Your task to perform on an android device: What's the weather like in Seoul? Image 0: 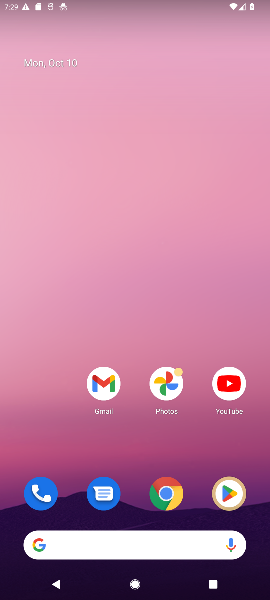
Step 0: drag from (131, 370) to (96, 47)
Your task to perform on an android device: What's the weather like in Seoul? Image 1: 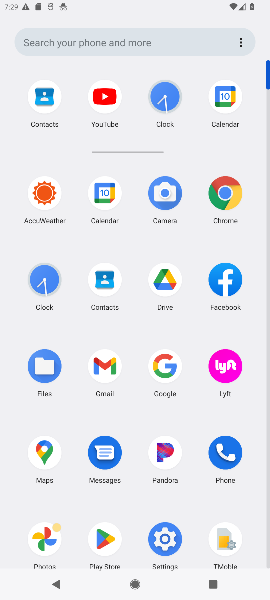
Step 1: click (171, 372)
Your task to perform on an android device: What's the weather like in Seoul? Image 2: 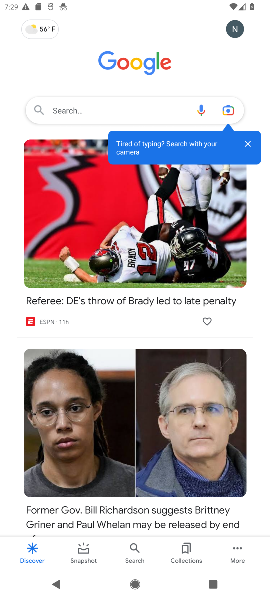
Step 2: click (92, 104)
Your task to perform on an android device: What's the weather like in Seoul? Image 3: 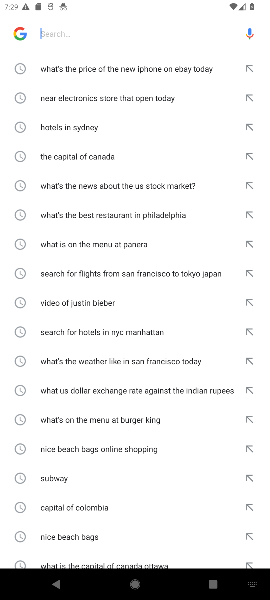
Step 3: type "What's the weather like in Seoul?"
Your task to perform on an android device: What's the weather like in Seoul? Image 4: 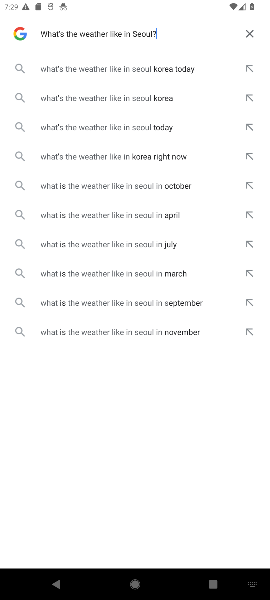
Step 4: click (127, 65)
Your task to perform on an android device: What's the weather like in Seoul? Image 5: 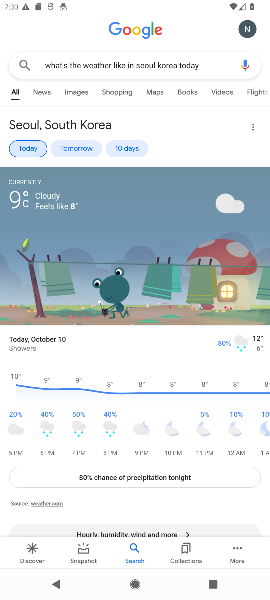
Step 5: click (146, 487)
Your task to perform on an android device: What's the weather like in Seoul? Image 6: 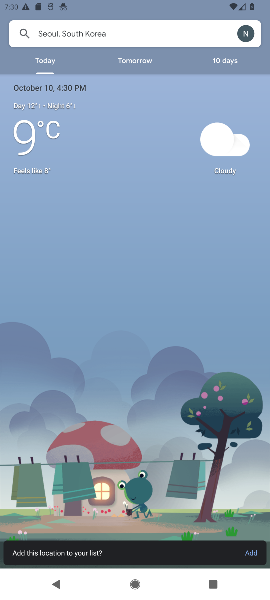
Step 6: task complete